Your task to perform on an android device: change the upload size in google photos Image 0: 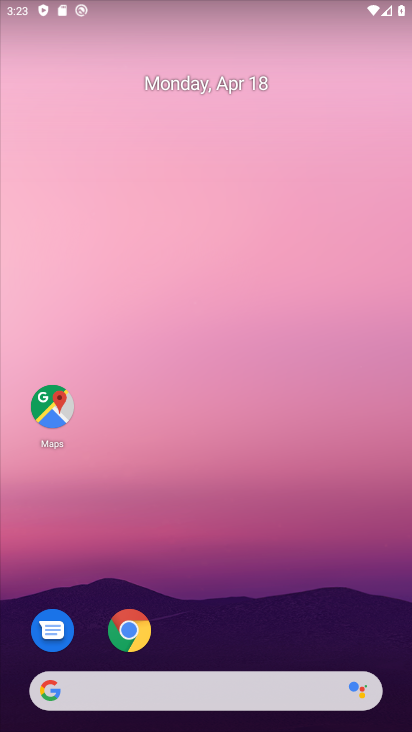
Step 0: drag from (172, 660) to (325, 106)
Your task to perform on an android device: change the upload size in google photos Image 1: 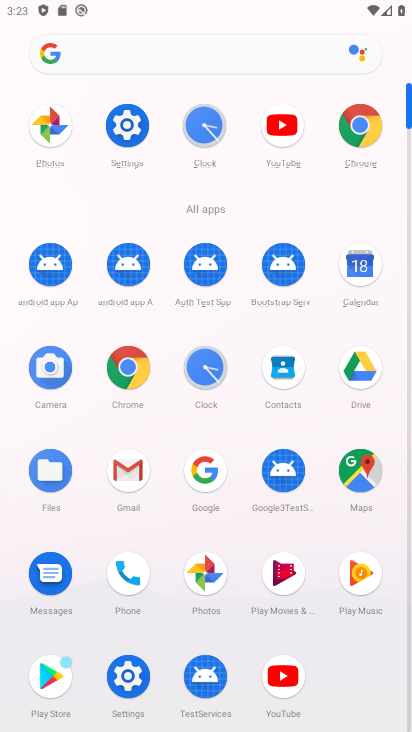
Step 1: click (36, 119)
Your task to perform on an android device: change the upload size in google photos Image 2: 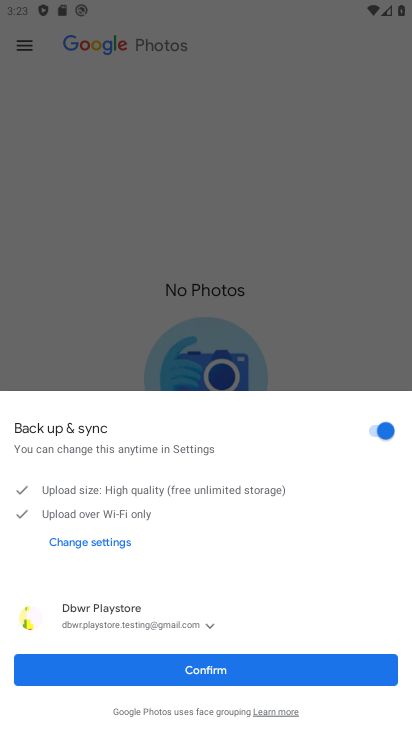
Step 2: click (230, 662)
Your task to perform on an android device: change the upload size in google photos Image 3: 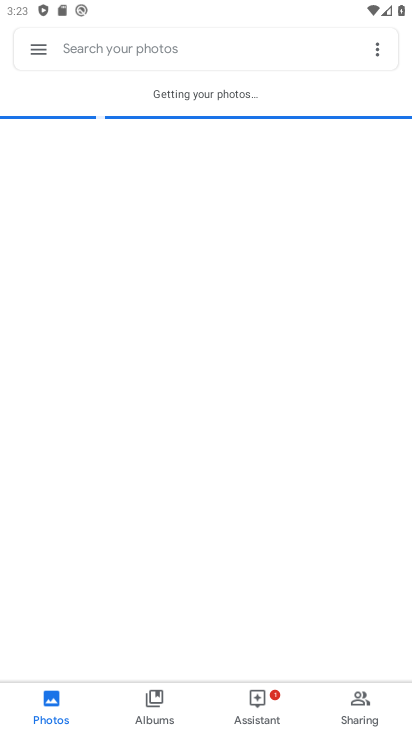
Step 3: click (38, 47)
Your task to perform on an android device: change the upload size in google photos Image 4: 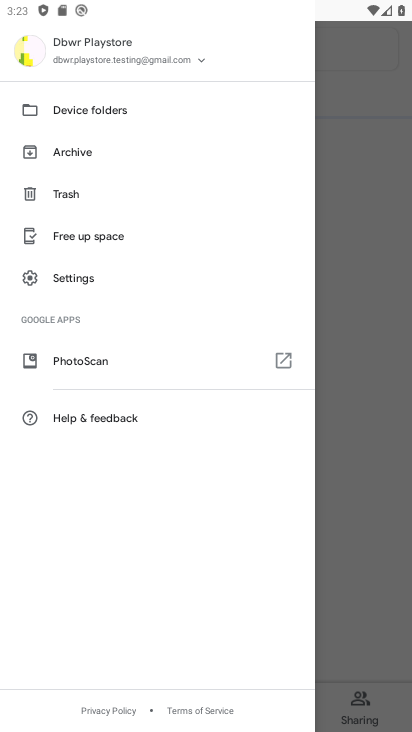
Step 4: click (118, 284)
Your task to perform on an android device: change the upload size in google photos Image 5: 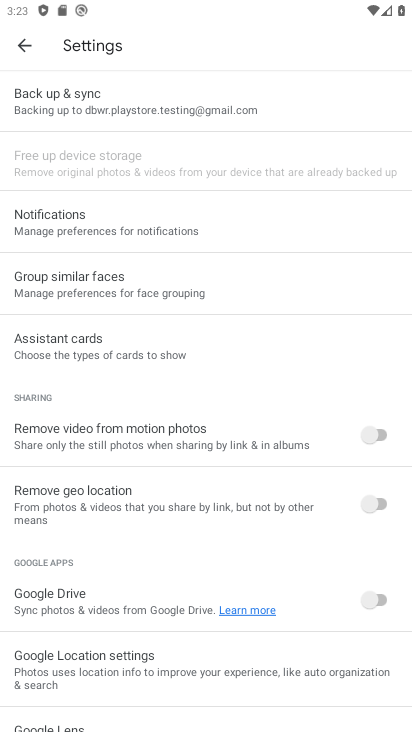
Step 5: click (196, 115)
Your task to perform on an android device: change the upload size in google photos Image 6: 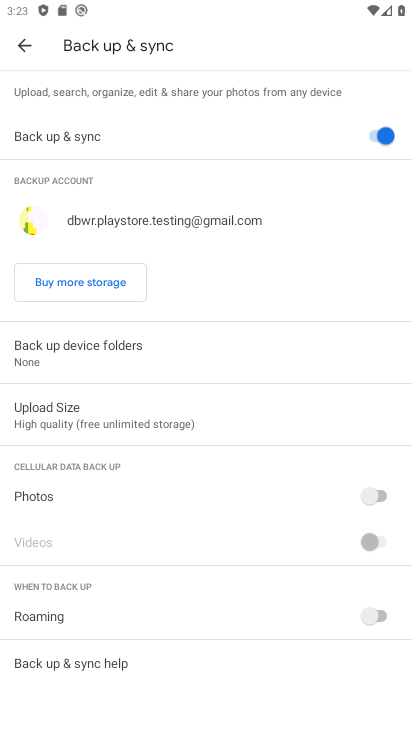
Step 6: drag from (179, 560) to (258, 285)
Your task to perform on an android device: change the upload size in google photos Image 7: 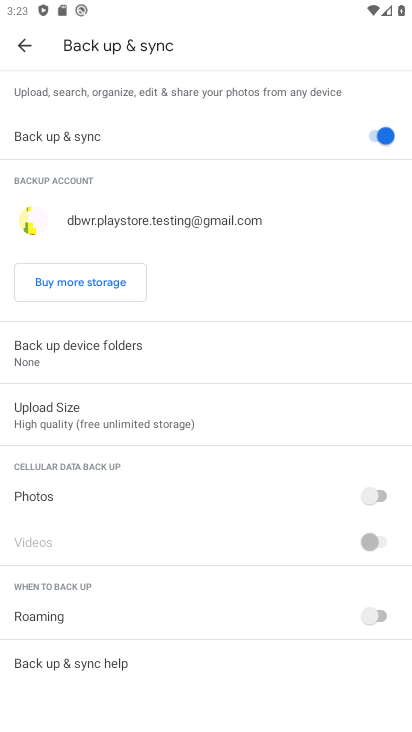
Step 7: click (190, 424)
Your task to perform on an android device: change the upload size in google photos Image 8: 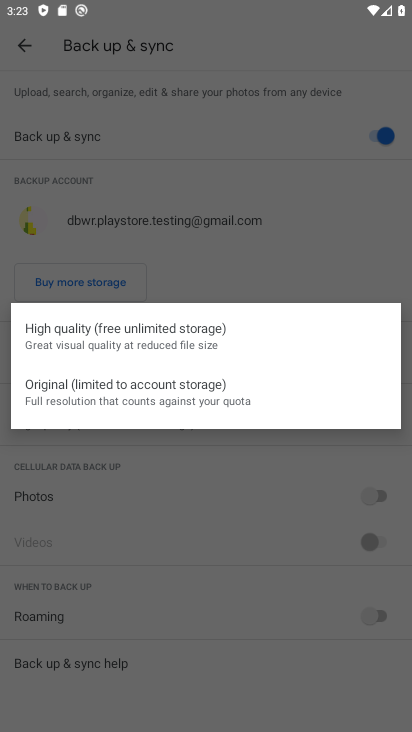
Step 8: click (282, 342)
Your task to perform on an android device: change the upload size in google photos Image 9: 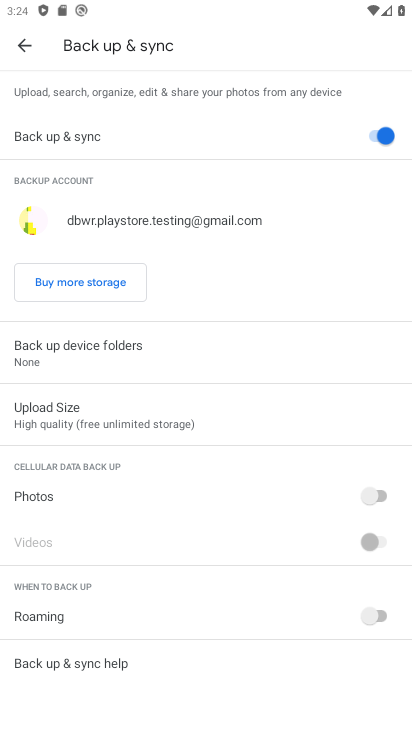
Step 9: task complete